Your task to perform on an android device: Do I have any events tomorrow? Image 0: 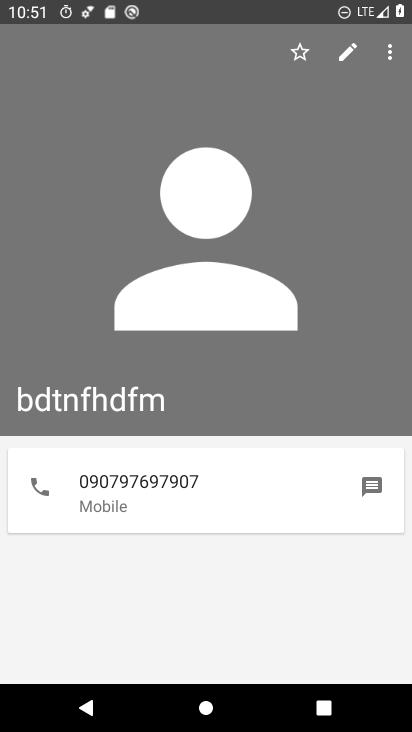
Step 0: press home button
Your task to perform on an android device: Do I have any events tomorrow? Image 1: 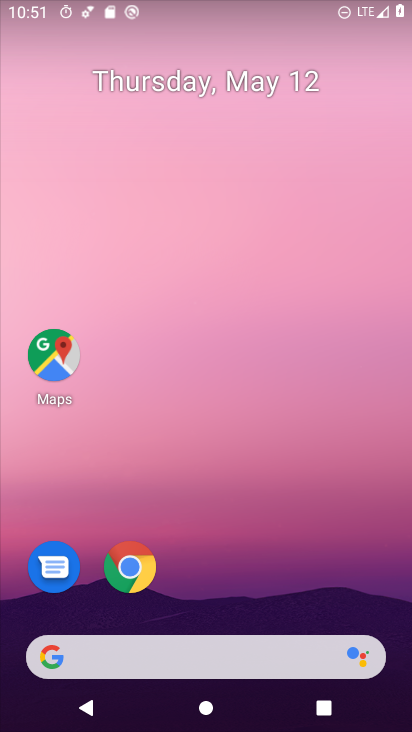
Step 1: drag from (320, 498) to (309, 23)
Your task to perform on an android device: Do I have any events tomorrow? Image 2: 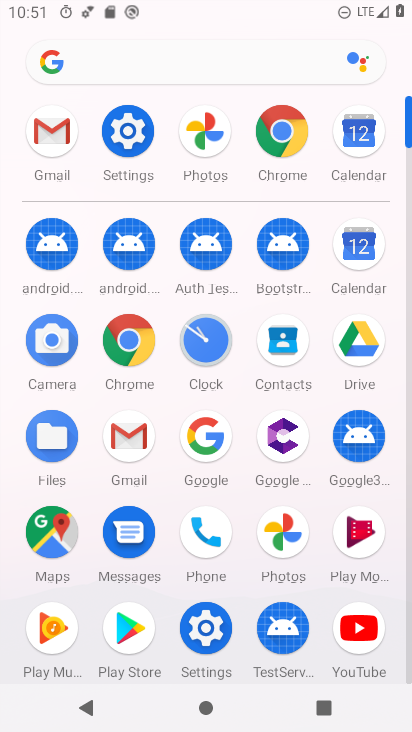
Step 2: drag from (212, 468) to (214, 321)
Your task to perform on an android device: Do I have any events tomorrow? Image 3: 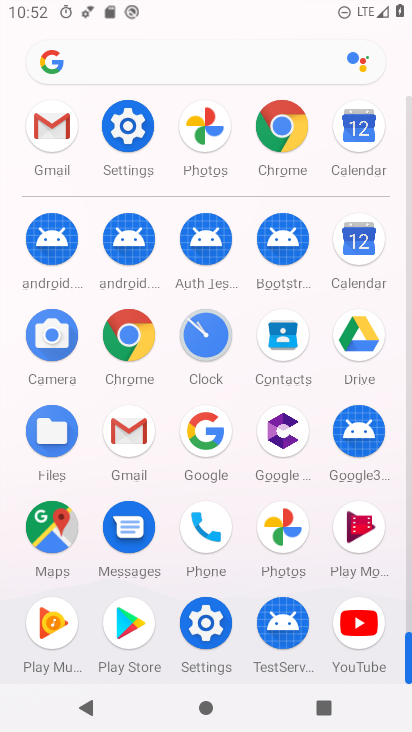
Step 3: click (365, 276)
Your task to perform on an android device: Do I have any events tomorrow? Image 4: 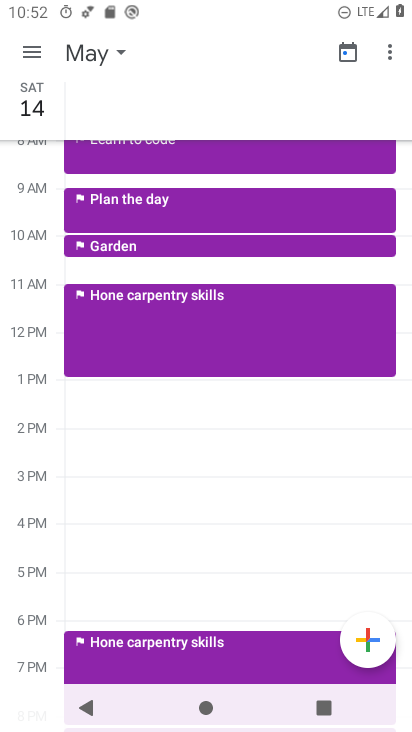
Step 4: task complete